Your task to perform on an android device: Open Google Image 0: 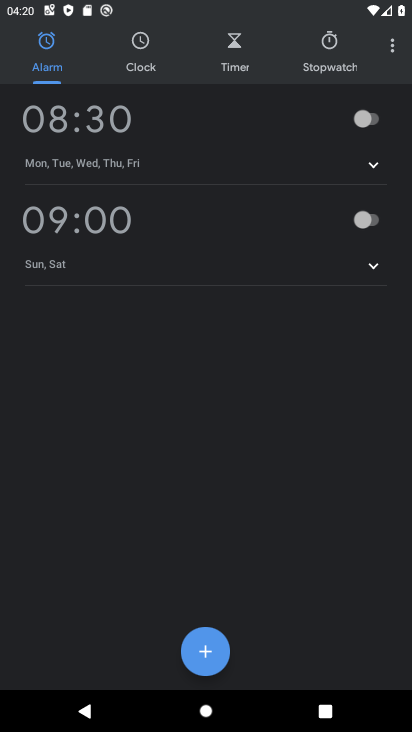
Step 0: press home button
Your task to perform on an android device: Open Google Image 1: 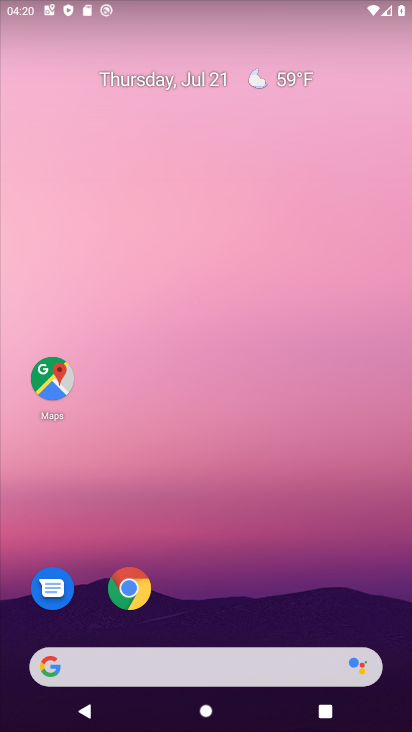
Step 1: click (102, 661)
Your task to perform on an android device: Open Google Image 2: 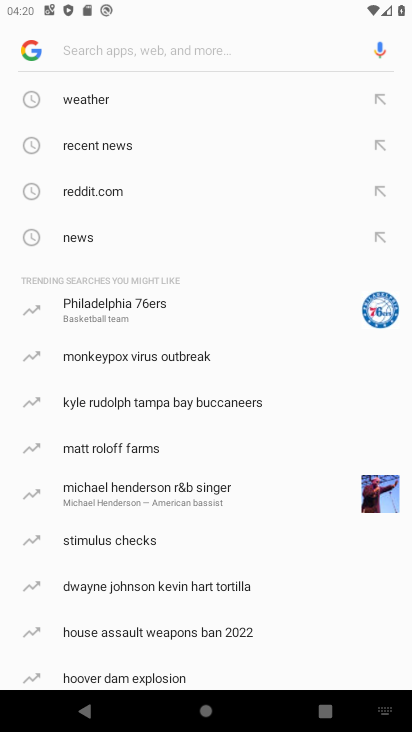
Step 2: click (33, 49)
Your task to perform on an android device: Open Google Image 3: 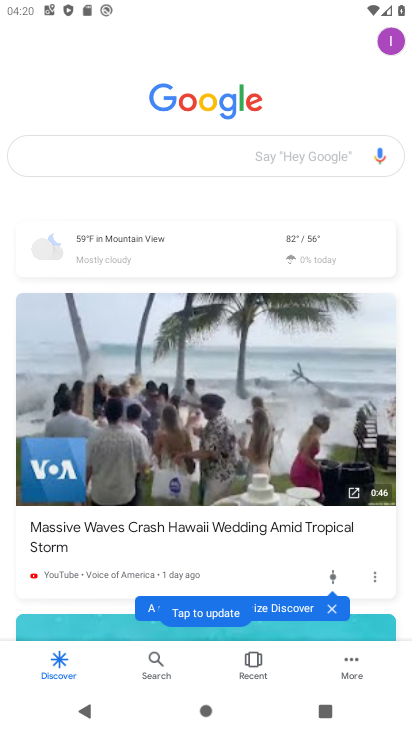
Step 3: task complete